Your task to perform on an android device: open app "Google Photos" (install if not already installed) Image 0: 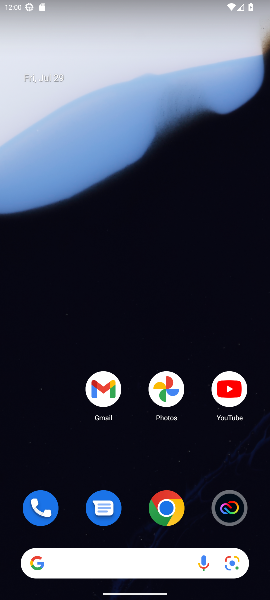
Step 0: drag from (157, 562) to (161, 66)
Your task to perform on an android device: open app "Google Photos" (install if not already installed) Image 1: 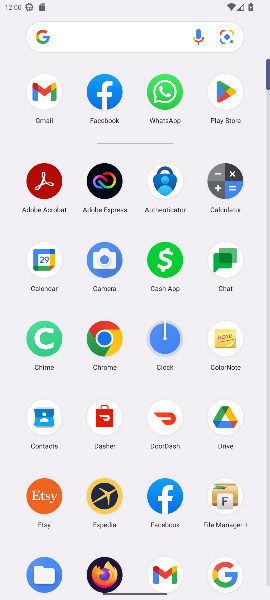
Step 1: drag from (126, 454) to (129, 221)
Your task to perform on an android device: open app "Google Photos" (install if not already installed) Image 2: 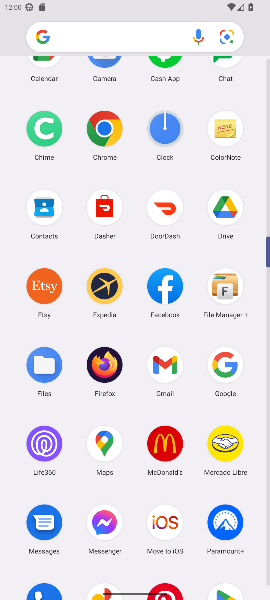
Step 2: drag from (136, 431) to (129, 349)
Your task to perform on an android device: open app "Google Photos" (install if not already installed) Image 3: 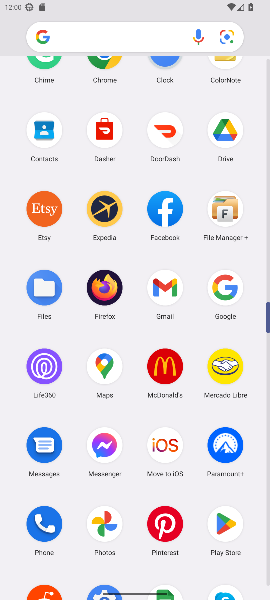
Step 3: drag from (134, 232) to (130, 552)
Your task to perform on an android device: open app "Google Photos" (install if not already installed) Image 4: 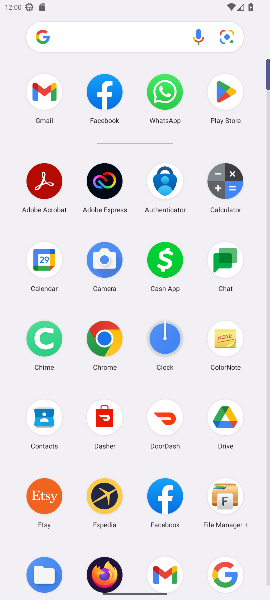
Step 4: click (221, 81)
Your task to perform on an android device: open app "Google Photos" (install if not already installed) Image 5: 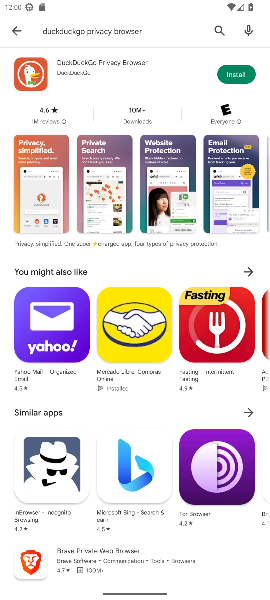
Step 5: click (223, 28)
Your task to perform on an android device: open app "Google Photos" (install if not already installed) Image 6: 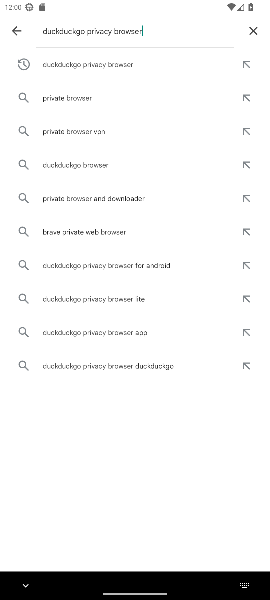
Step 6: click (253, 28)
Your task to perform on an android device: open app "Google Photos" (install if not already installed) Image 7: 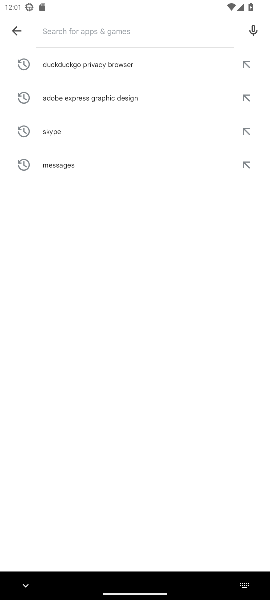
Step 7: type "google photos"
Your task to perform on an android device: open app "Google Photos" (install if not already installed) Image 8: 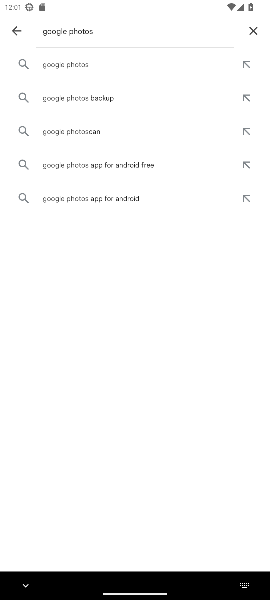
Step 8: click (65, 66)
Your task to perform on an android device: open app "Google Photos" (install if not already installed) Image 9: 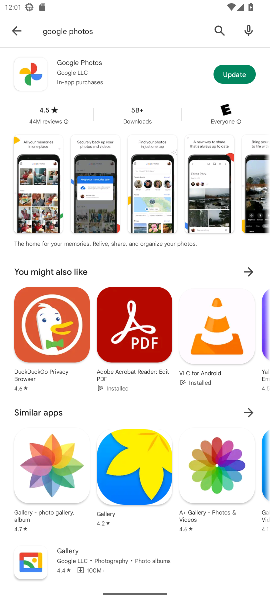
Step 9: task complete